Your task to perform on an android device: Search for pizza restaurants on Maps Image 0: 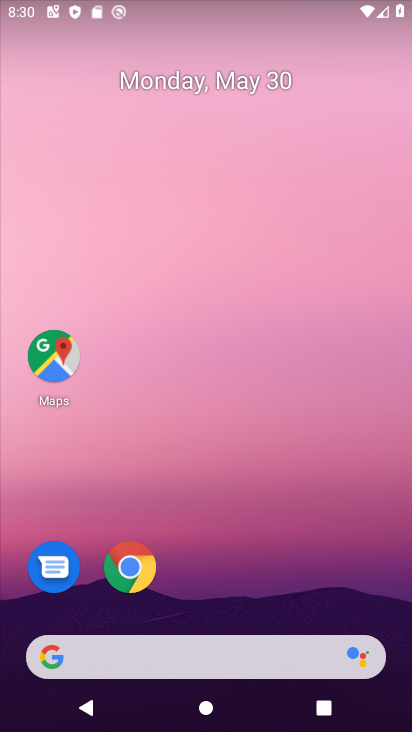
Step 0: click (31, 353)
Your task to perform on an android device: Search for pizza restaurants on Maps Image 1: 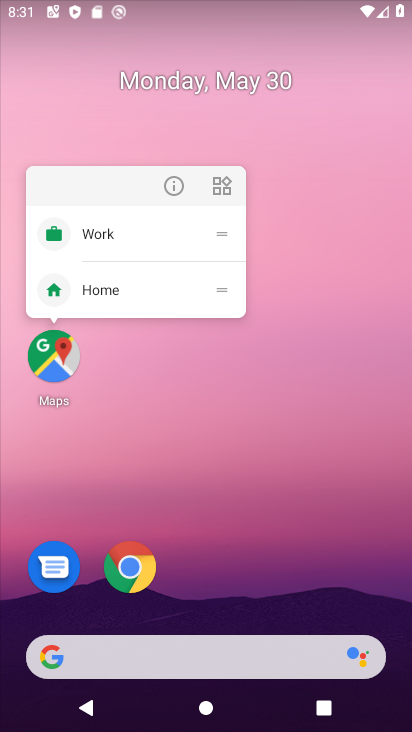
Step 1: click (124, 293)
Your task to perform on an android device: Search for pizza restaurants on Maps Image 2: 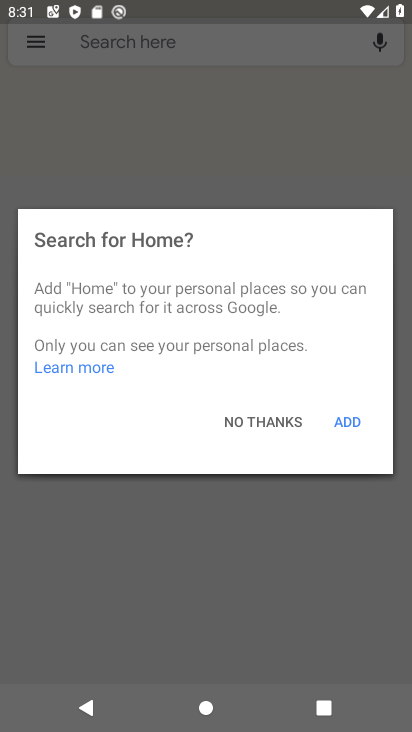
Step 2: click (148, 63)
Your task to perform on an android device: Search for pizza restaurants on Maps Image 3: 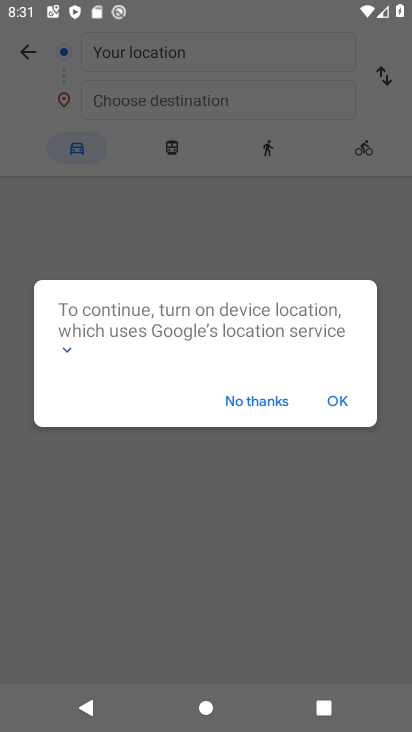
Step 3: click (346, 398)
Your task to perform on an android device: Search for pizza restaurants on Maps Image 4: 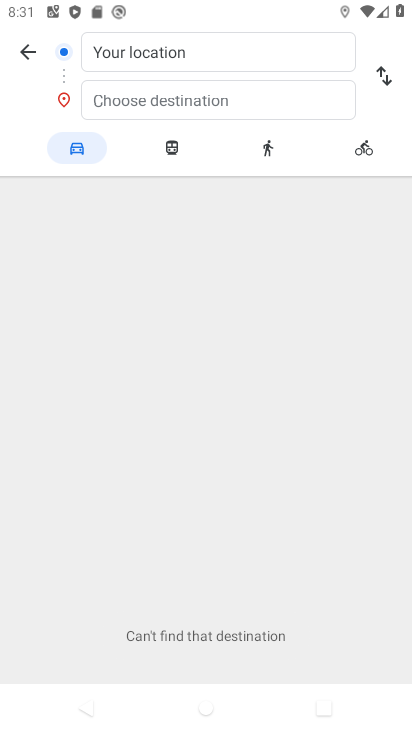
Step 4: click (34, 58)
Your task to perform on an android device: Search for pizza restaurants on Maps Image 5: 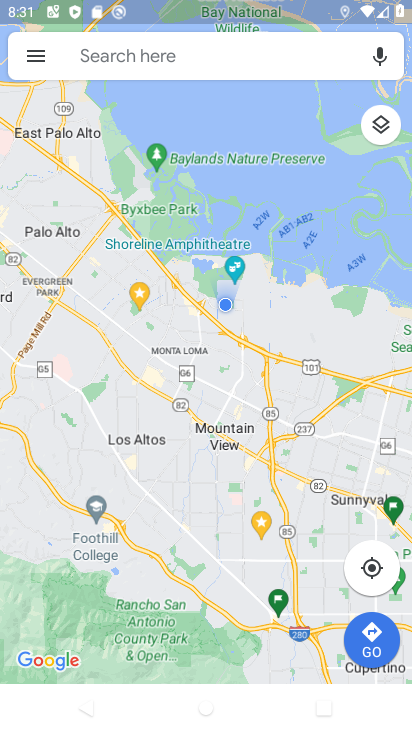
Step 5: click (154, 45)
Your task to perform on an android device: Search for pizza restaurants on Maps Image 6: 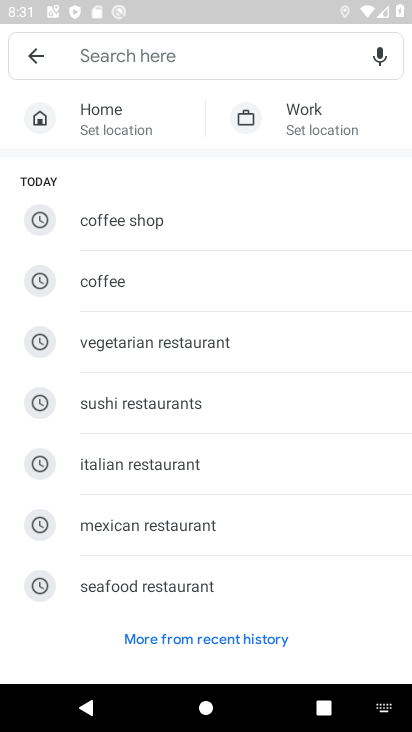
Step 6: type "pizza restaurant"
Your task to perform on an android device: Search for pizza restaurants on Maps Image 7: 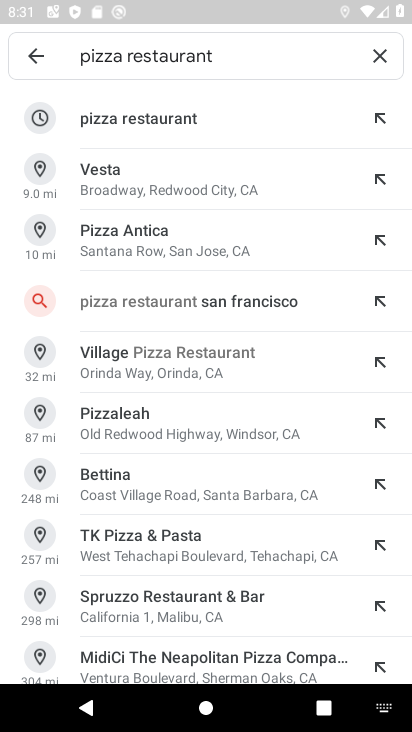
Step 7: click (184, 102)
Your task to perform on an android device: Search for pizza restaurants on Maps Image 8: 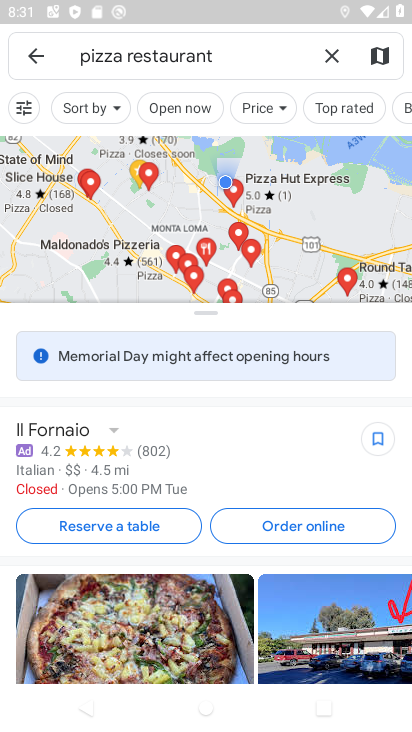
Step 8: task complete